Your task to perform on an android device: Open Google Chrome and click the shortcut for Amazon.com Image 0: 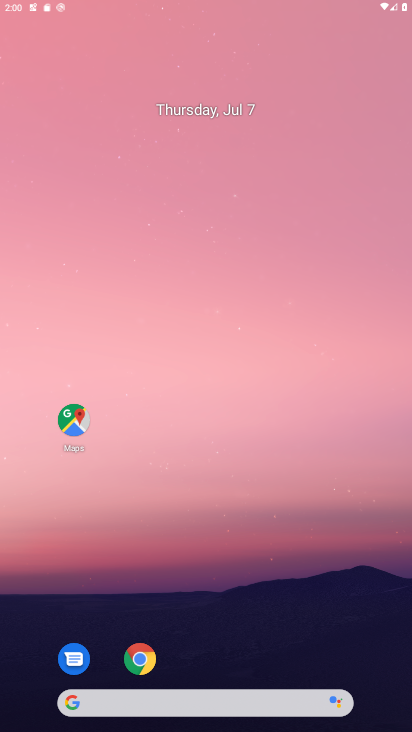
Step 0: click (357, 113)
Your task to perform on an android device: Open Google Chrome and click the shortcut for Amazon.com Image 1: 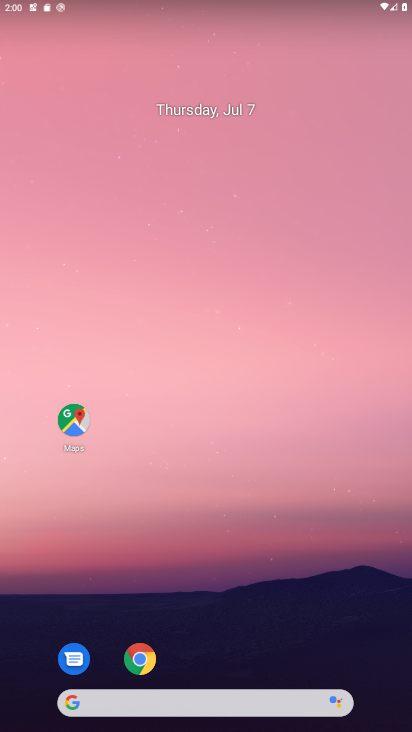
Step 1: drag from (240, 678) to (355, 140)
Your task to perform on an android device: Open Google Chrome and click the shortcut for Amazon.com Image 2: 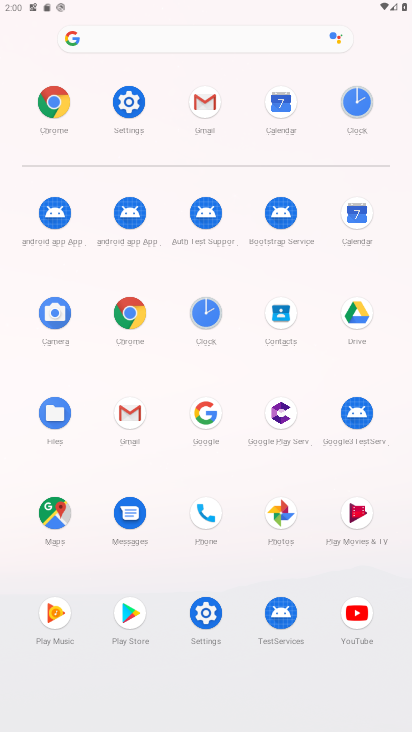
Step 2: click (109, 311)
Your task to perform on an android device: Open Google Chrome and click the shortcut for Amazon.com Image 3: 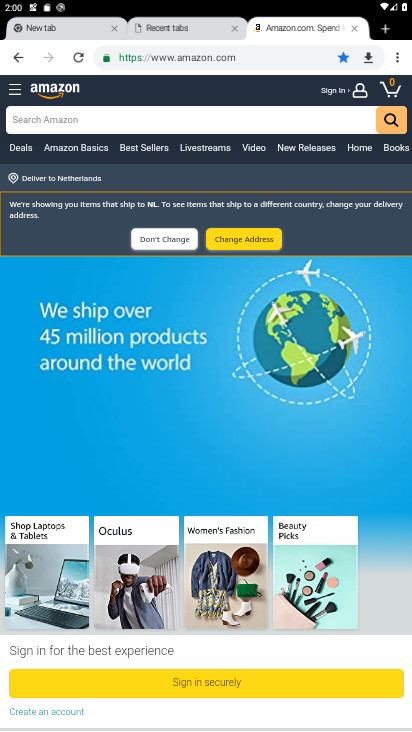
Step 3: task complete